Your task to perform on an android device: Search for logitech g910 on walmart, select the first entry, and add it to the cart. Image 0: 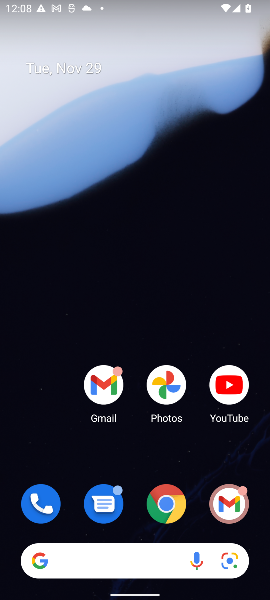
Step 0: click (168, 506)
Your task to perform on an android device: Search for logitech g910 on walmart, select the first entry, and add it to the cart. Image 1: 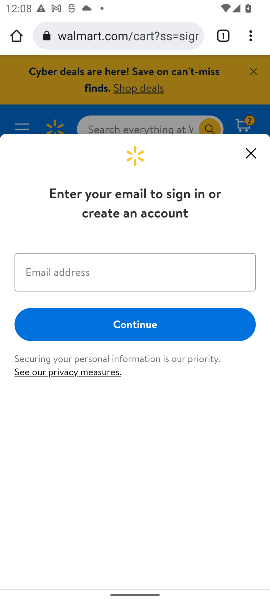
Step 1: click (251, 154)
Your task to perform on an android device: Search for logitech g910 on walmart, select the first entry, and add it to the cart. Image 2: 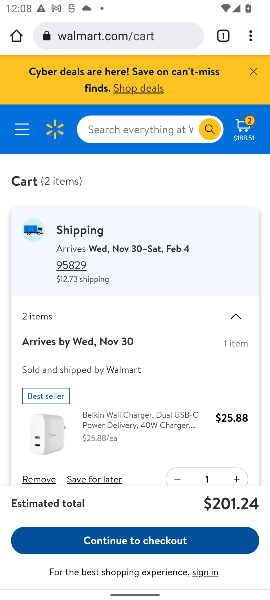
Step 2: click (106, 127)
Your task to perform on an android device: Search for logitech g910 on walmart, select the first entry, and add it to the cart. Image 3: 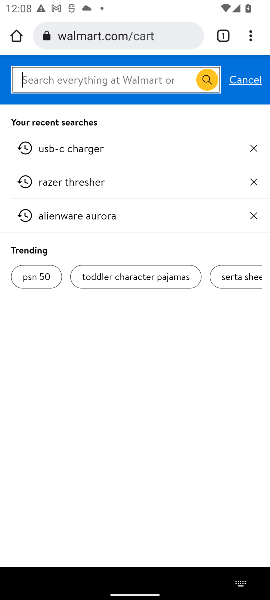
Step 3: type "logitech g910"
Your task to perform on an android device: Search for logitech g910 on walmart, select the first entry, and add it to the cart. Image 4: 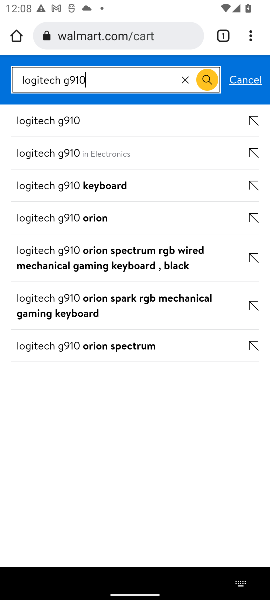
Step 4: click (42, 122)
Your task to perform on an android device: Search for logitech g910 on walmart, select the first entry, and add it to the cart. Image 5: 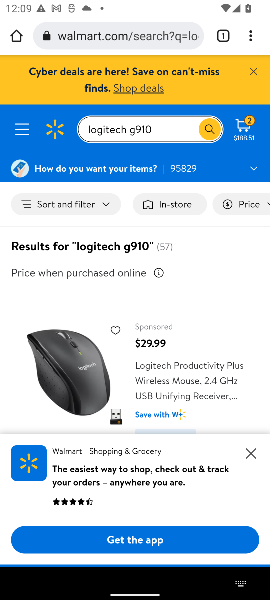
Step 5: task complete